Your task to perform on an android device: change your default location settings in chrome Image 0: 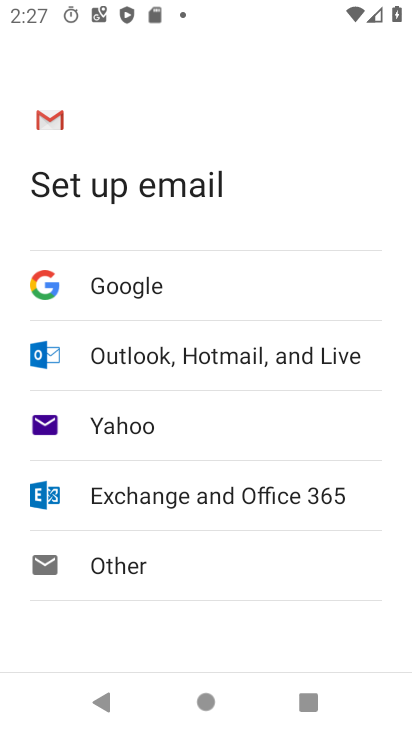
Step 0: press home button
Your task to perform on an android device: change your default location settings in chrome Image 1: 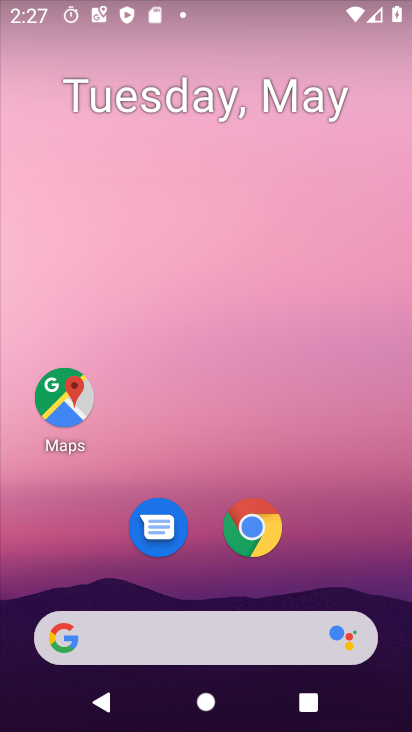
Step 1: drag from (268, 647) to (307, 306)
Your task to perform on an android device: change your default location settings in chrome Image 2: 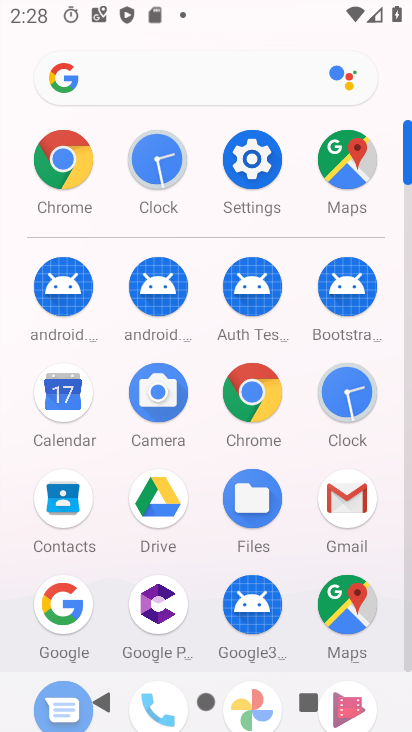
Step 2: click (239, 395)
Your task to perform on an android device: change your default location settings in chrome Image 3: 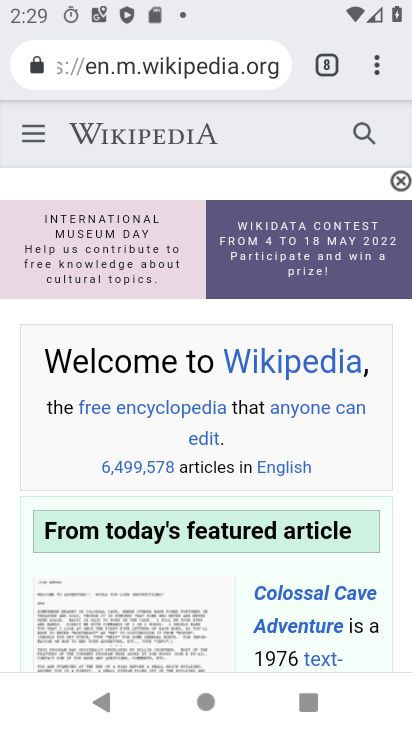
Step 3: click (363, 81)
Your task to perform on an android device: change your default location settings in chrome Image 4: 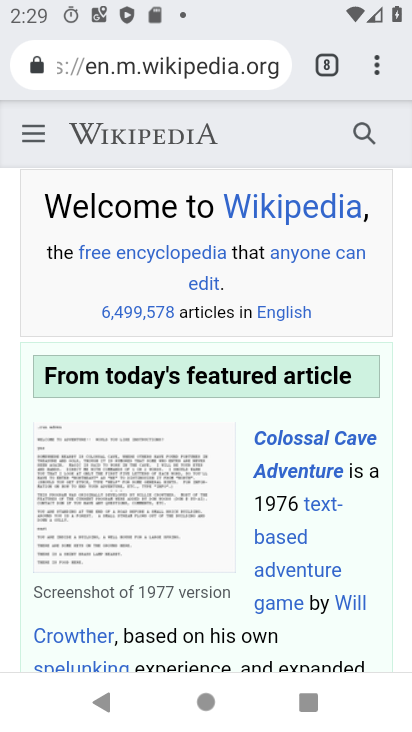
Step 4: click (359, 78)
Your task to perform on an android device: change your default location settings in chrome Image 5: 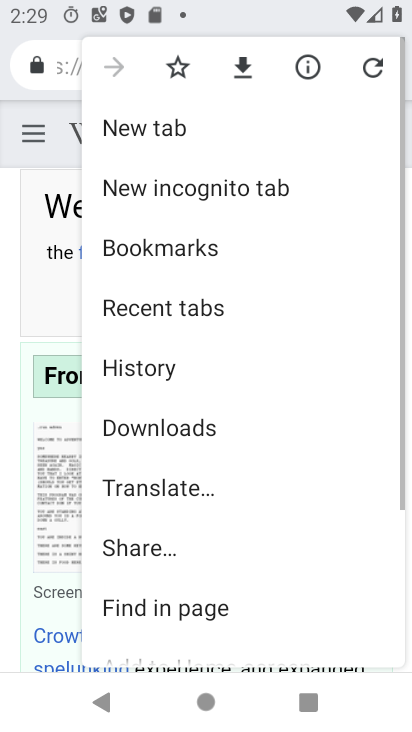
Step 5: drag from (322, 493) to (364, 239)
Your task to perform on an android device: change your default location settings in chrome Image 6: 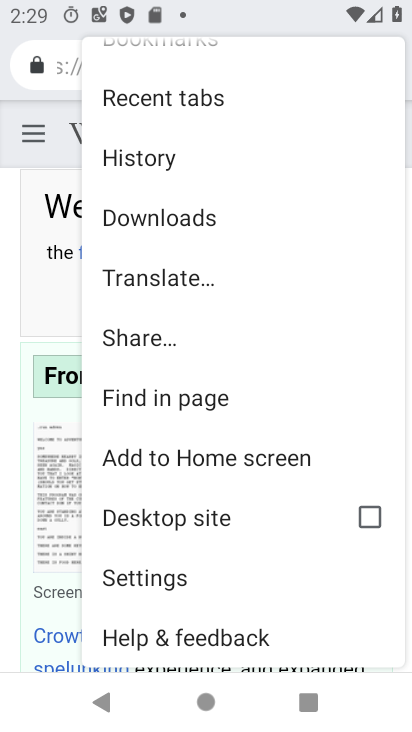
Step 6: drag from (288, 561) to (298, 350)
Your task to perform on an android device: change your default location settings in chrome Image 7: 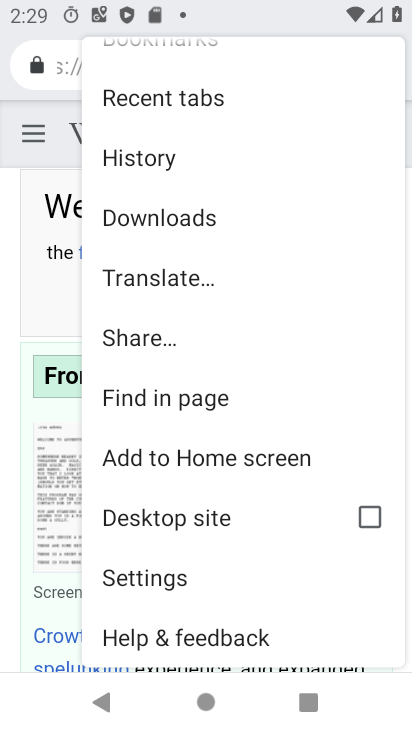
Step 7: drag from (236, 463) to (229, 385)
Your task to perform on an android device: change your default location settings in chrome Image 8: 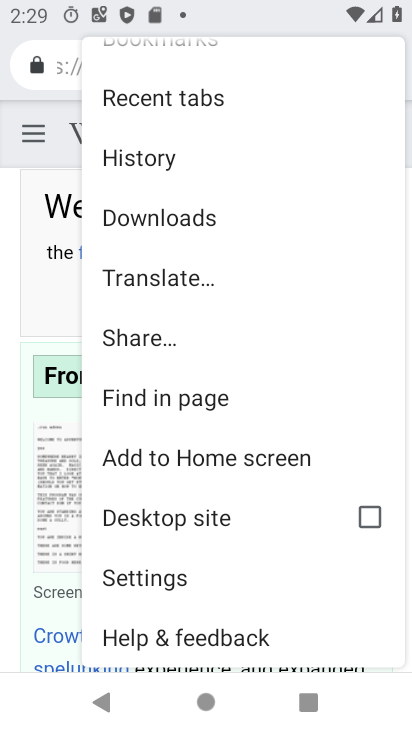
Step 8: click (190, 577)
Your task to perform on an android device: change your default location settings in chrome Image 9: 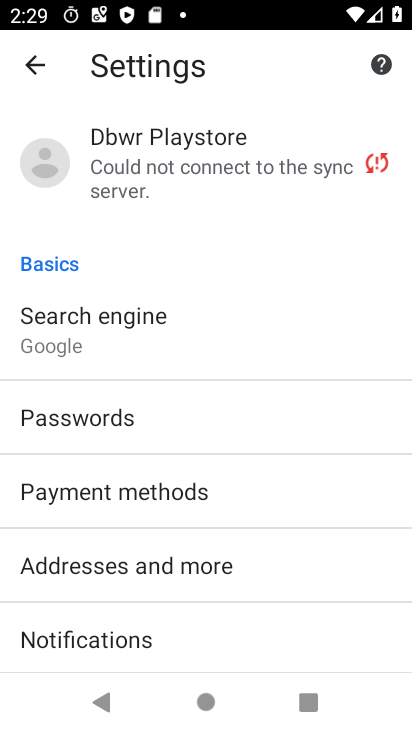
Step 9: drag from (170, 561) to (186, 432)
Your task to perform on an android device: change your default location settings in chrome Image 10: 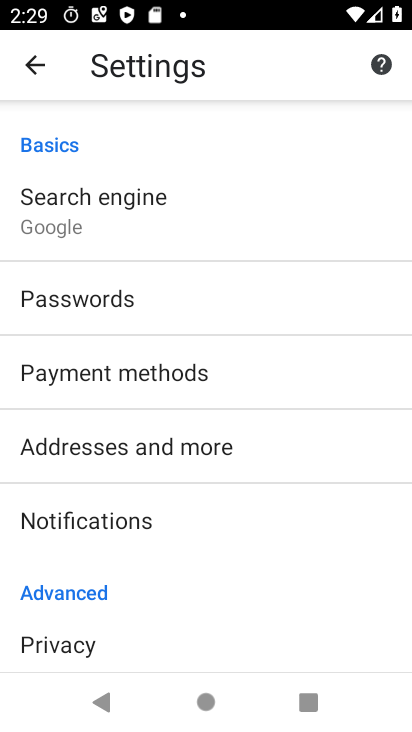
Step 10: drag from (144, 573) to (171, 401)
Your task to perform on an android device: change your default location settings in chrome Image 11: 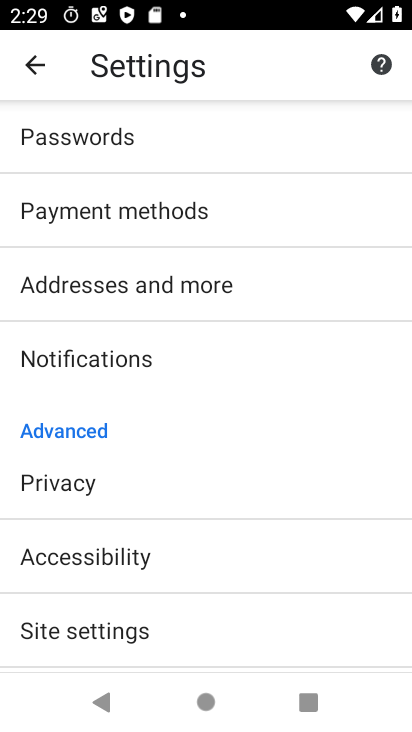
Step 11: drag from (118, 588) to (122, 381)
Your task to perform on an android device: change your default location settings in chrome Image 12: 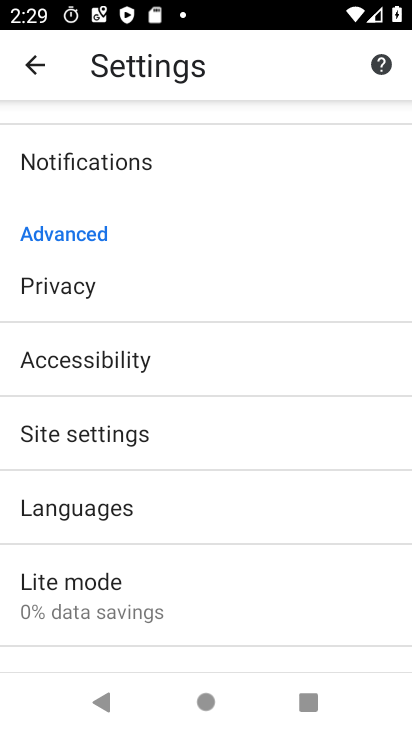
Step 12: click (128, 438)
Your task to perform on an android device: change your default location settings in chrome Image 13: 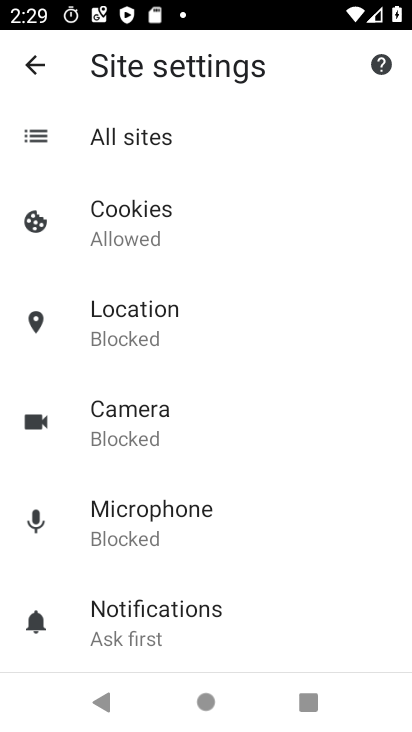
Step 13: click (155, 321)
Your task to perform on an android device: change your default location settings in chrome Image 14: 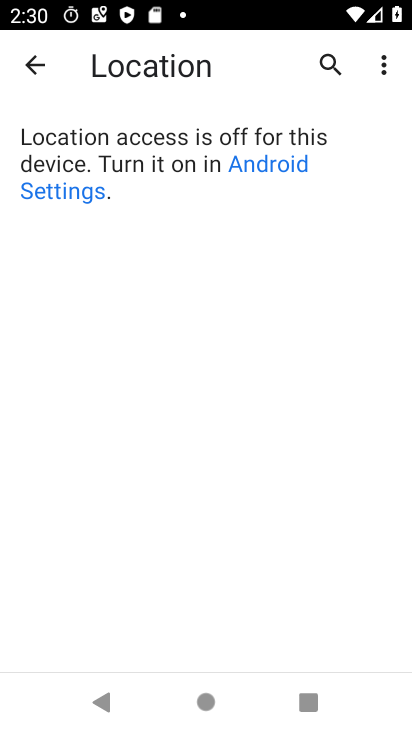
Step 14: task complete